Your task to perform on an android device: open sync settings in chrome Image 0: 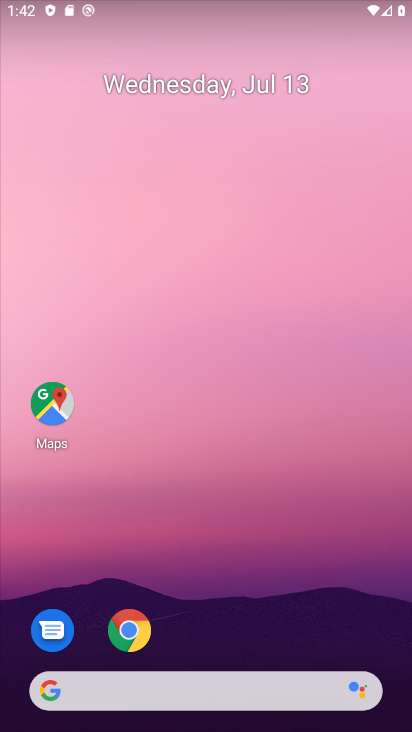
Step 0: click (137, 627)
Your task to perform on an android device: open sync settings in chrome Image 1: 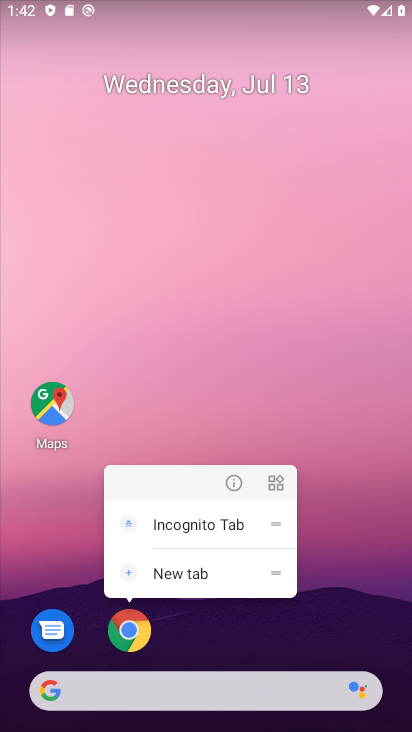
Step 1: click (140, 638)
Your task to perform on an android device: open sync settings in chrome Image 2: 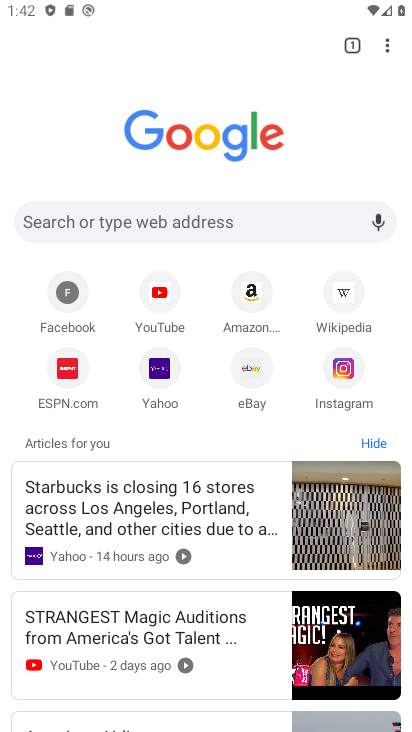
Step 2: click (385, 61)
Your task to perform on an android device: open sync settings in chrome Image 3: 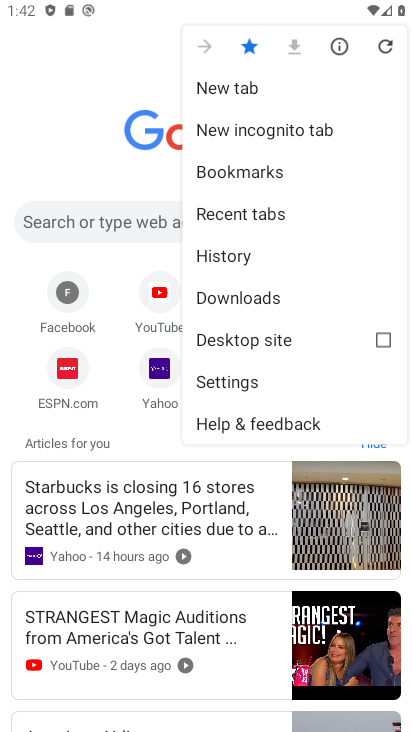
Step 3: click (258, 372)
Your task to perform on an android device: open sync settings in chrome Image 4: 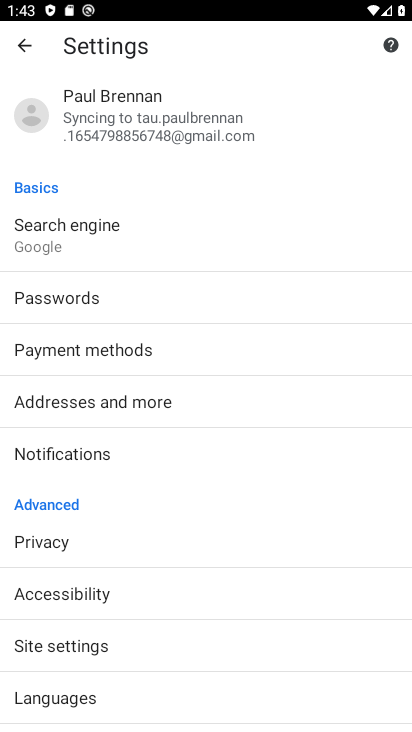
Step 4: click (226, 130)
Your task to perform on an android device: open sync settings in chrome Image 5: 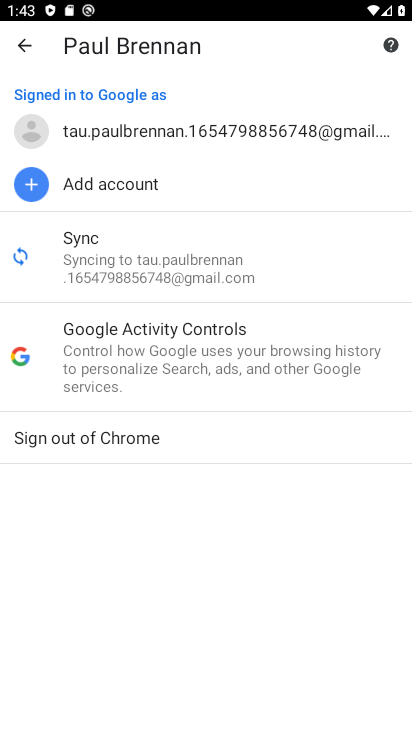
Step 5: click (126, 271)
Your task to perform on an android device: open sync settings in chrome Image 6: 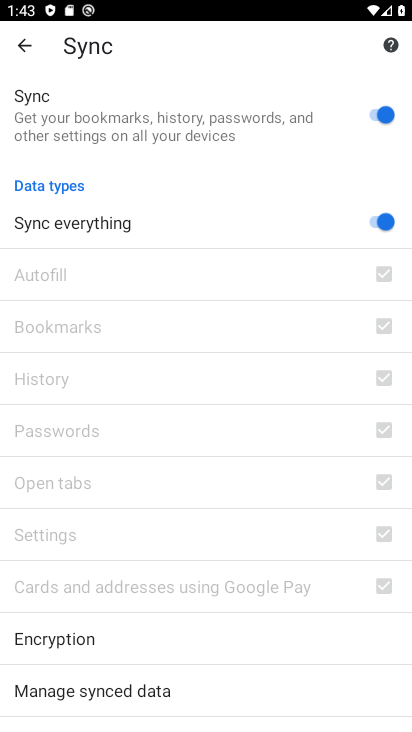
Step 6: task complete